Your task to perform on an android device: empty trash in the gmail app Image 0: 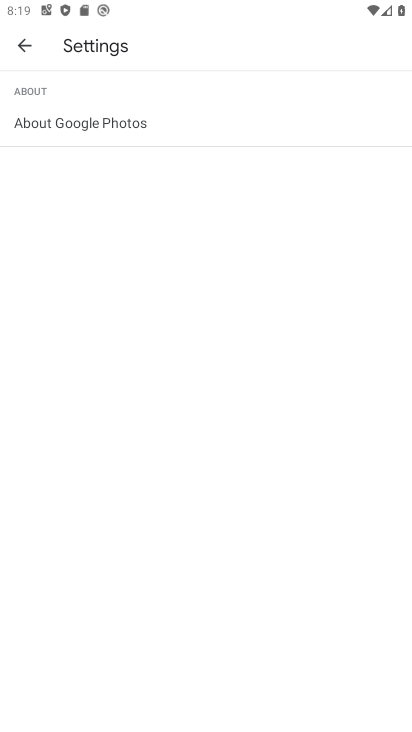
Step 0: press home button
Your task to perform on an android device: empty trash in the gmail app Image 1: 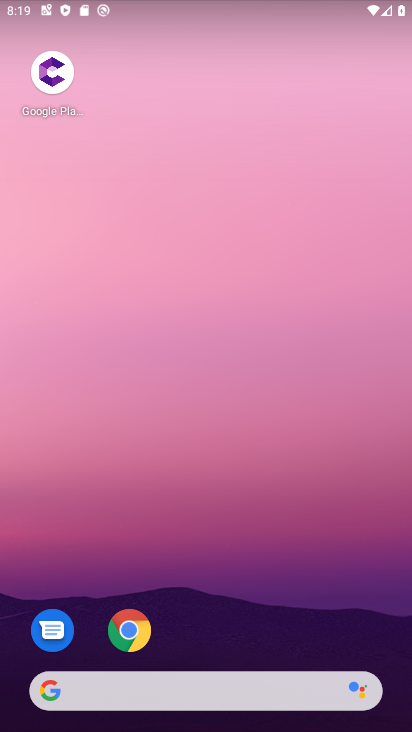
Step 1: drag from (179, 687) to (195, 18)
Your task to perform on an android device: empty trash in the gmail app Image 2: 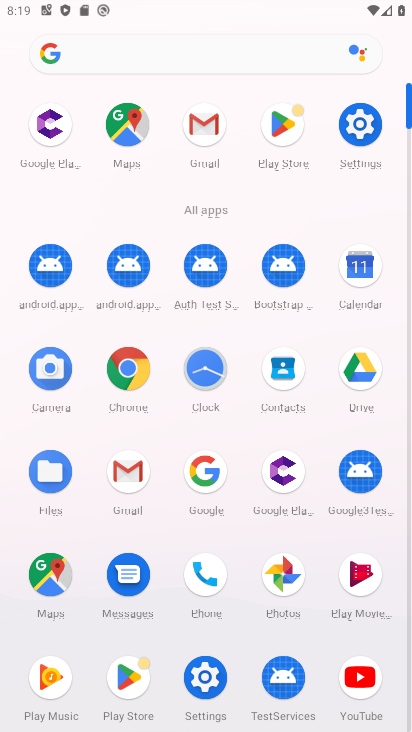
Step 2: click (201, 121)
Your task to perform on an android device: empty trash in the gmail app Image 3: 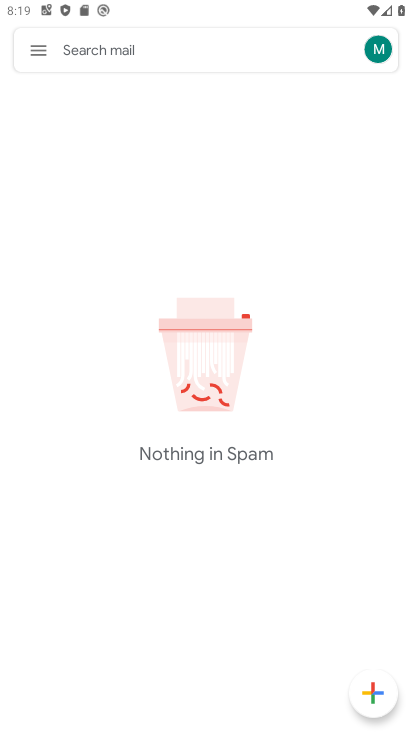
Step 3: click (34, 55)
Your task to perform on an android device: empty trash in the gmail app Image 4: 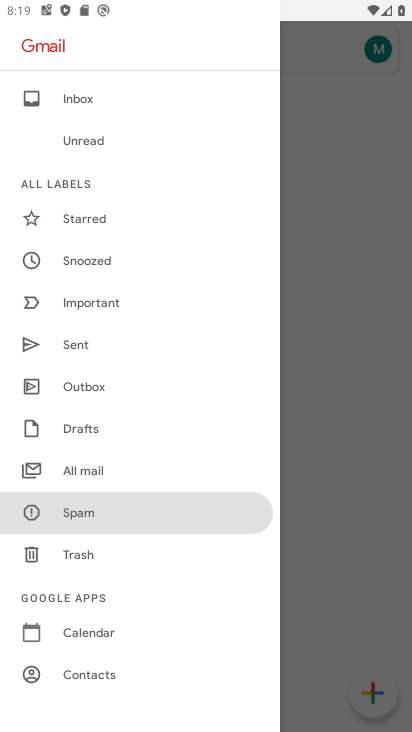
Step 4: click (94, 557)
Your task to perform on an android device: empty trash in the gmail app Image 5: 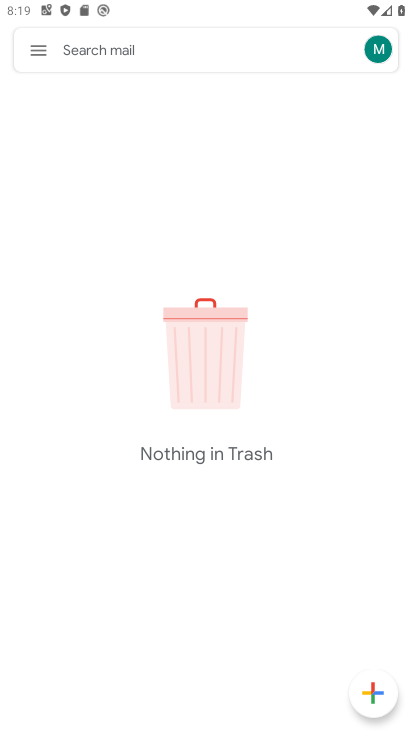
Step 5: task complete